Your task to perform on an android device: create a new album in the google photos Image 0: 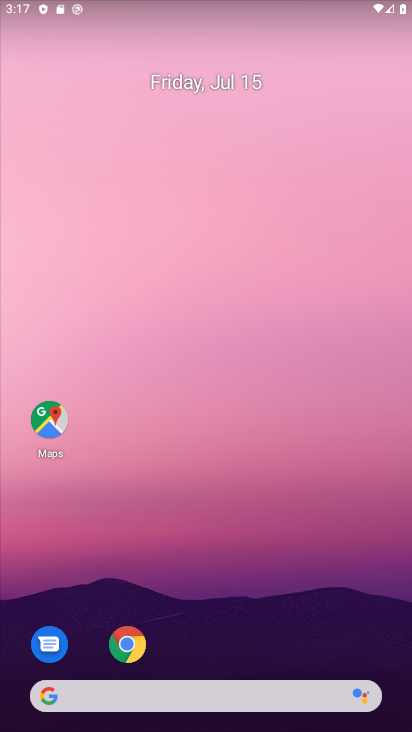
Step 0: drag from (299, 632) to (126, 87)
Your task to perform on an android device: create a new album in the google photos Image 1: 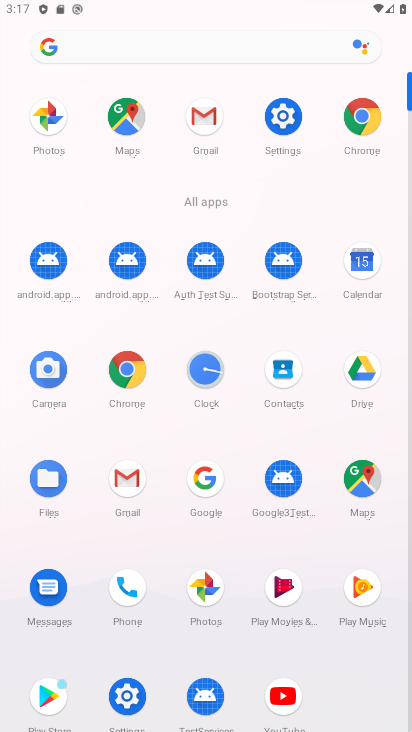
Step 1: click (46, 116)
Your task to perform on an android device: create a new album in the google photos Image 2: 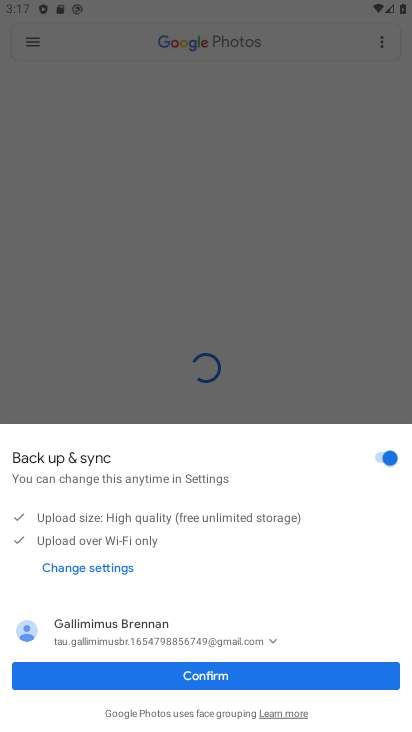
Step 2: click (234, 678)
Your task to perform on an android device: create a new album in the google photos Image 3: 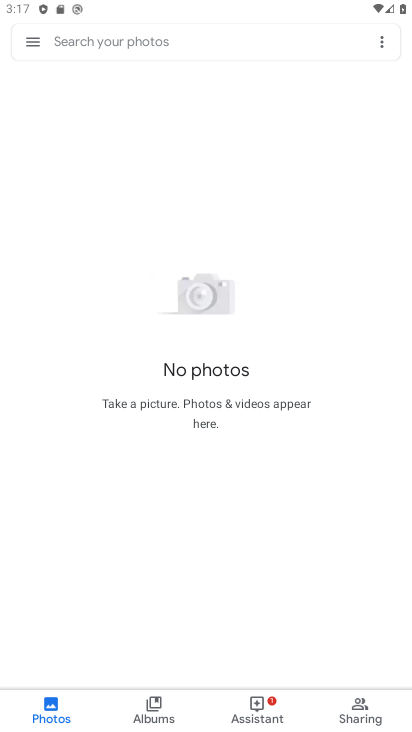
Step 3: click (257, 720)
Your task to perform on an android device: create a new album in the google photos Image 4: 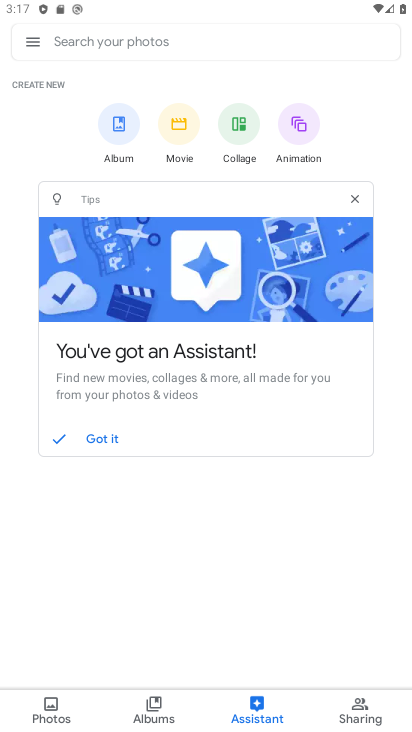
Step 4: click (122, 117)
Your task to perform on an android device: create a new album in the google photos Image 5: 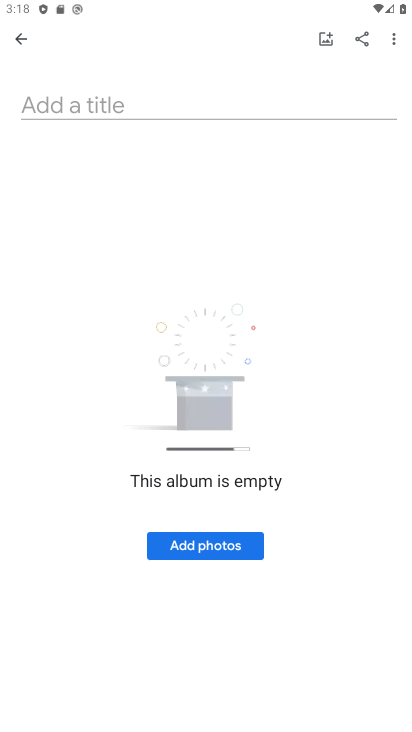
Step 5: click (152, 108)
Your task to perform on an android device: create a new album in the google photos Image 6: 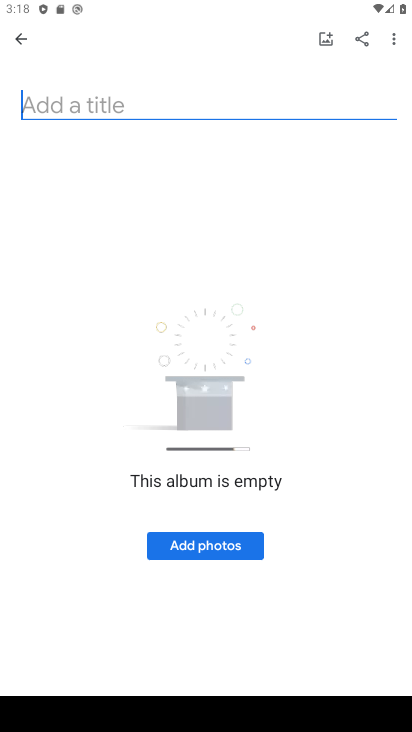
Step 6: type "nskjnksj"
Your task to perform on an android device: create a new album in the google photos Image 7: 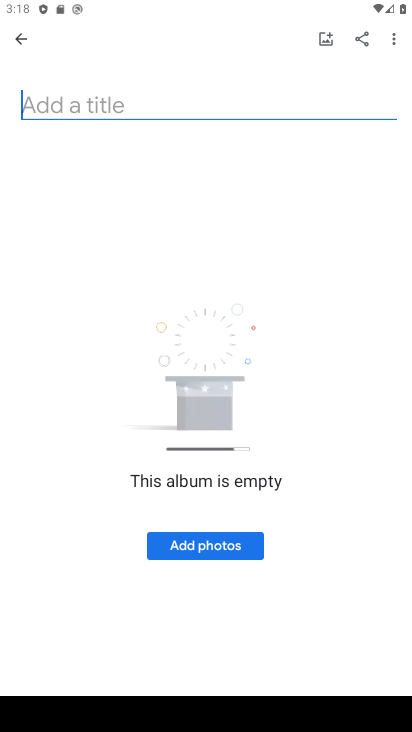
Step 7: click (239, 544)
Your task to perform on an android device: create a new album in the google photos Image 8: 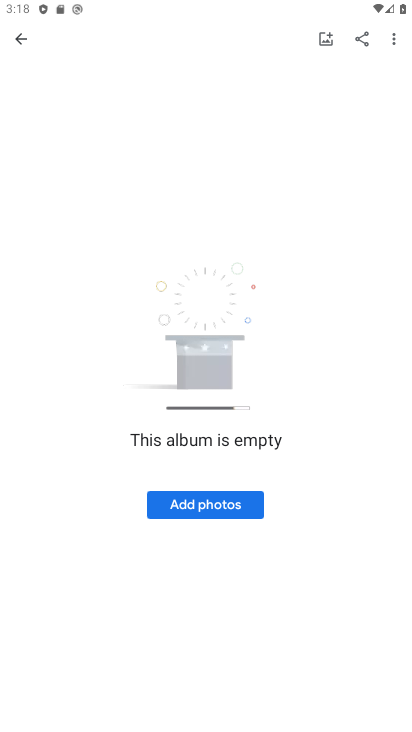
Step 8: click (195, 513)
Your task to perform on an android device: create a new album in the google photos Image 9: 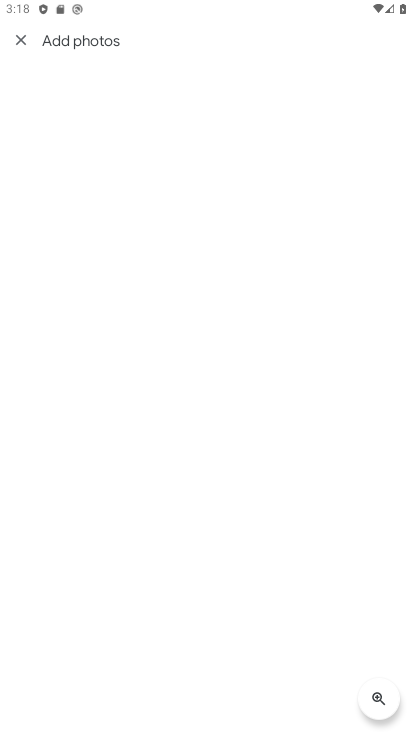
Step 9: task complete